Your task to perform on an android device: Do I have any events today? Image 0: 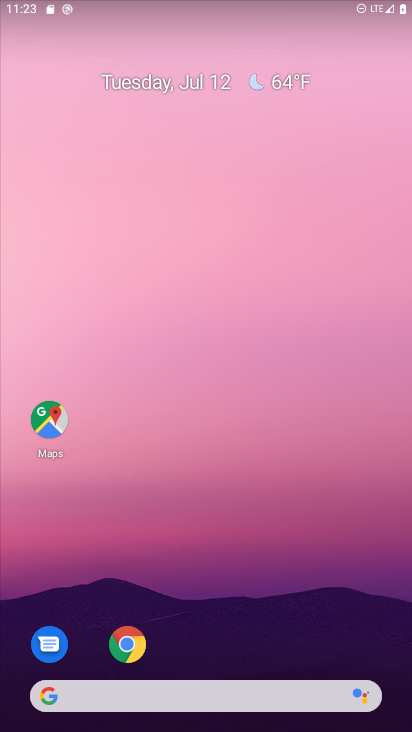
Step 0: drag from (237, 485) to (233, 124)
Your task to perform on an android device: Do I have any events today? Image 1: 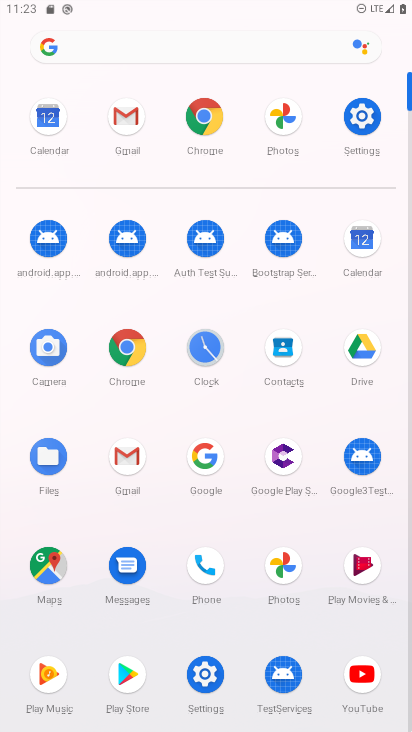
Step 1: click (350, 237)
Your task to perform on an android device: Do I have any events today? Image 2: 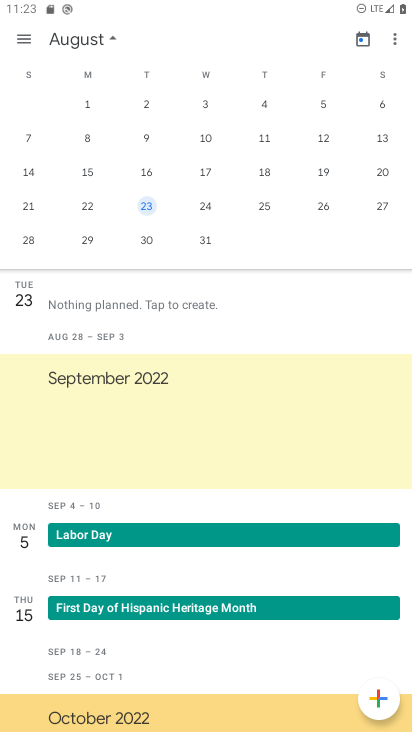
Step 2: task complete